Your task to perform on an android device: Open calendar and show me the third week of next month Image 0: 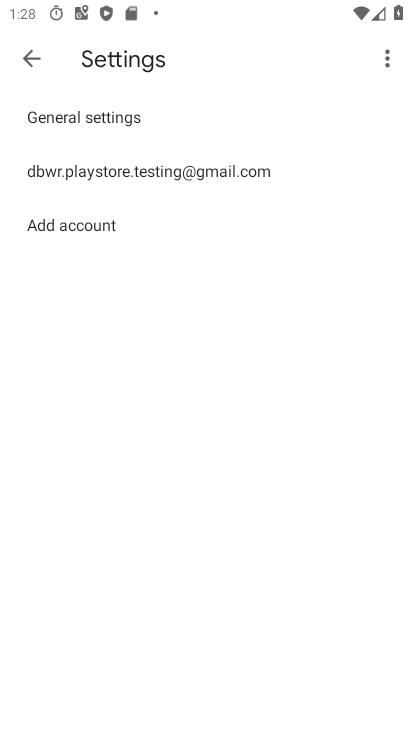
Step 0: press home button
Your task to perform on an android device: Open calendar and show me the third week of next month Image 1: 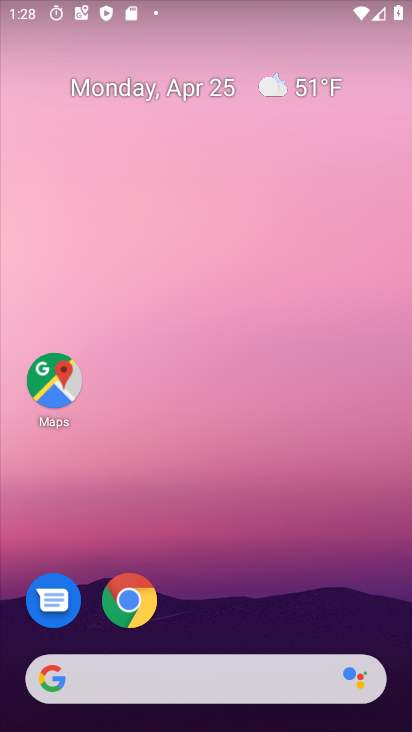
Step 1: drag from (165, 674) to (293, 212)
Your task to perform on an android device: Open calendar and show me the third week of next month Image 2: 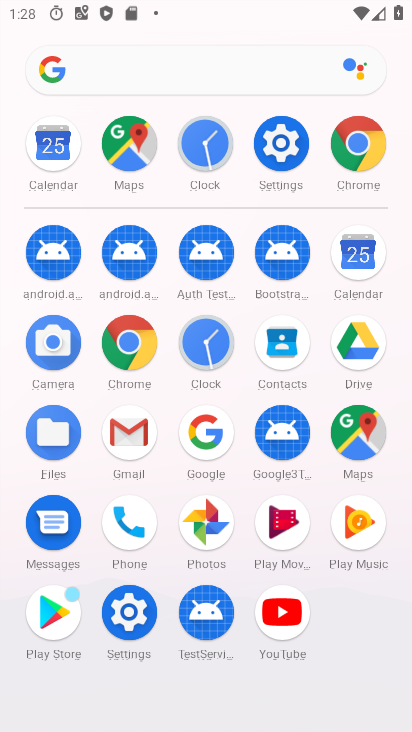
Step 2: click (359, 256)
Your task to perform on an android device: Open calendar and show me the third week of next month Image 3: 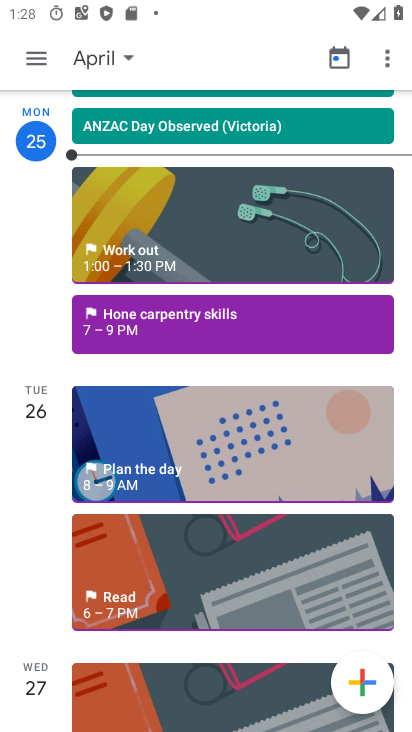
Step 3: click (97, 59)
Your task to perform on an android device: Open calendar and show me the third week of next month Image 4: 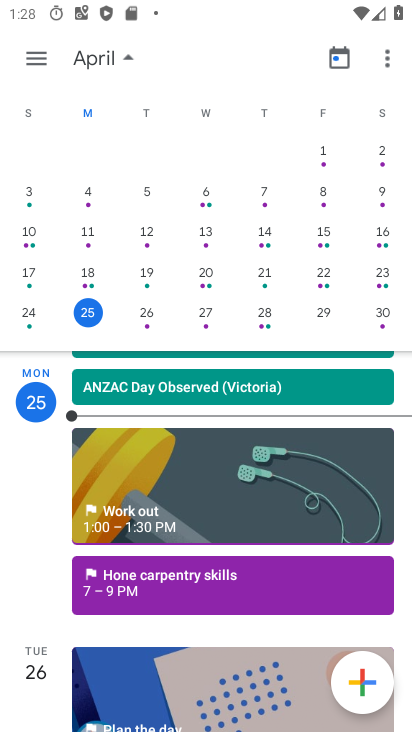
Step 4: drag from (375, 265) to (6, 324)
Your task to perform on an android device: Open calendar and show me the third week of next month Image 5: 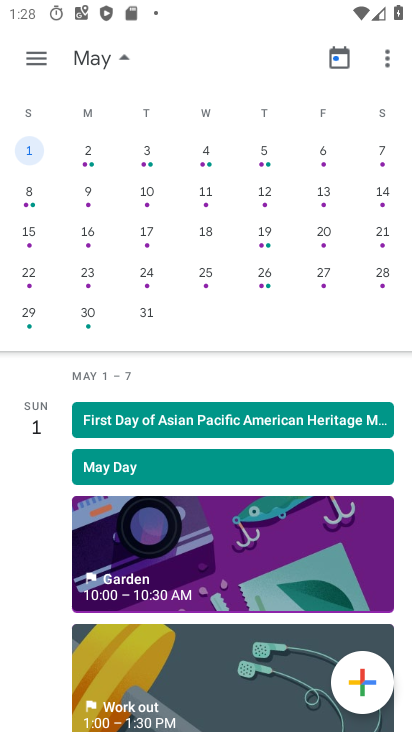
Step 5: click (28, 233)
Your task to perform on an android device: Open calendar and show me the third week of next month Image 6: 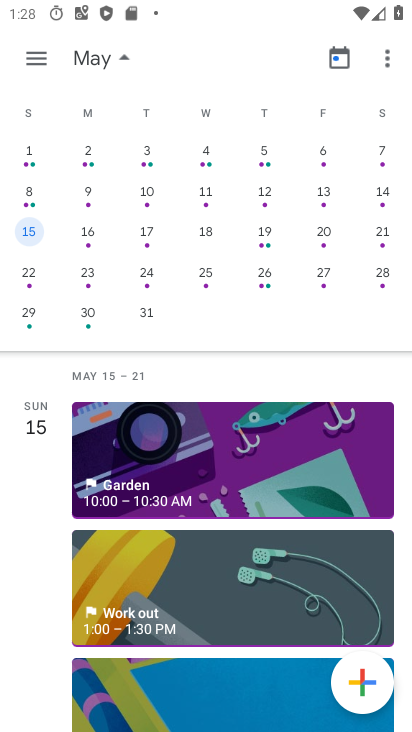
Step 6: click (30, 64)
Your task to perform on an android device: Open calendar and show me the third week of next month Image 7: 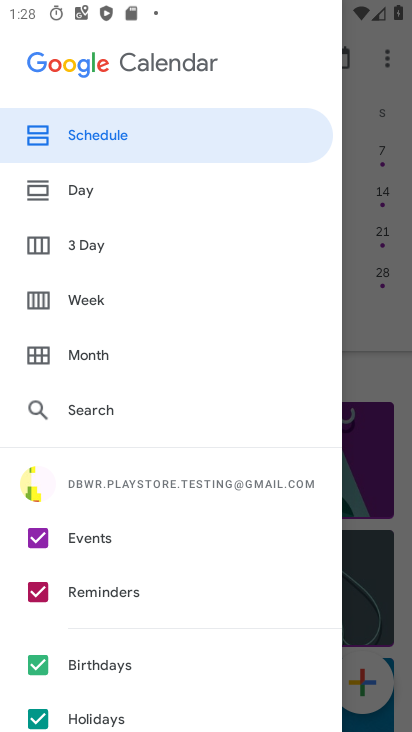
Step 7: click (88, 299)
Your task to perform on an android device: Open calendar and show me the third week of next month Image 8: 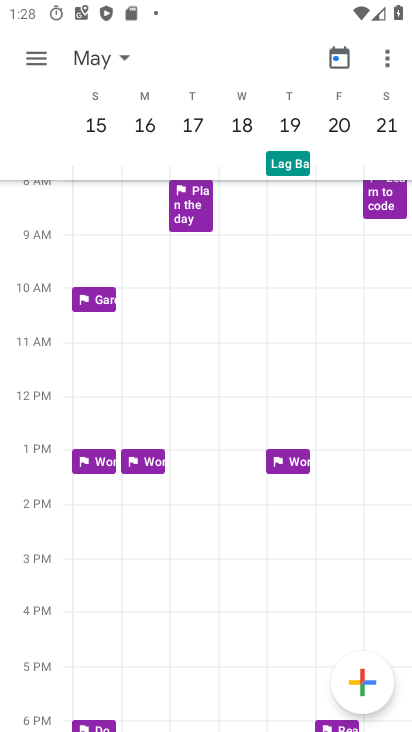
Step 8: task complete